Your task to perform on an android device: Go to accessibility settings Image 0: 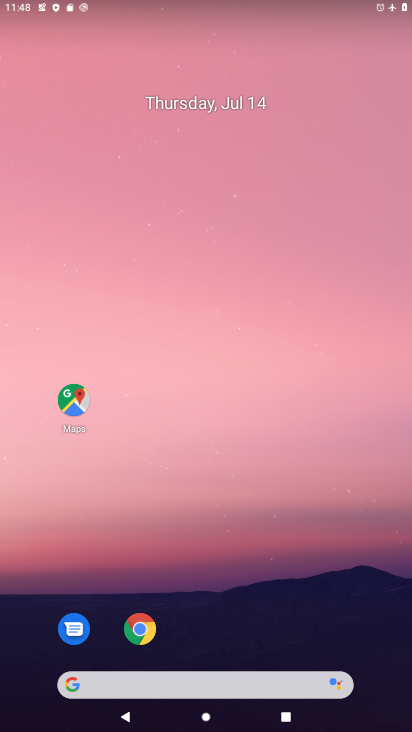
Step 0: press home button
Your task to perform on an android device: Go to accessibility settings Image 1: 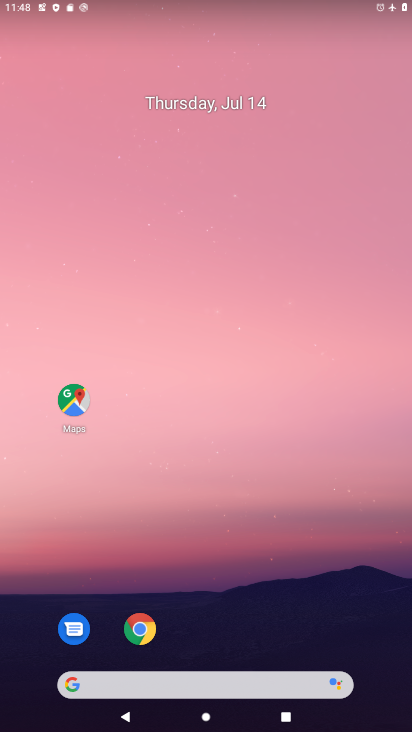
Step 1: drag from (255, 634) to (163, 31)
Your task to perform on an android device: Go to accessibility settings Image 2: 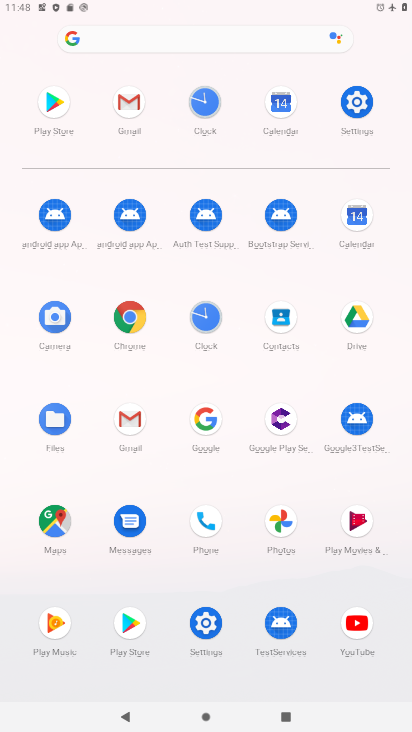
Step 2: click (355, 97)
Your task to perform on an android device: Go to accessibility settings Image 3: 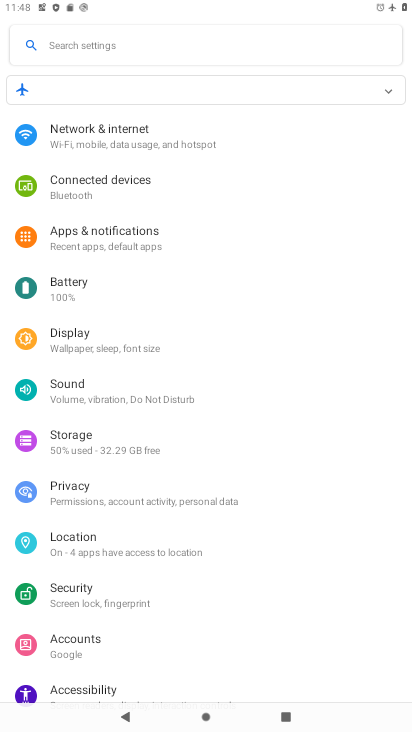
Step 3: click (90, 687)
Your task to perform on an android device: Go to accessibility settings Image 4: 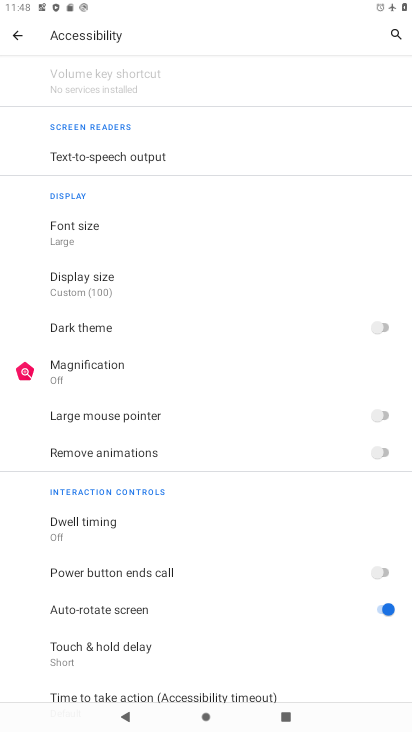
Step 4: task complete